Your task to perform on an android device: Search for Italian restaurants on Maps Image 0: 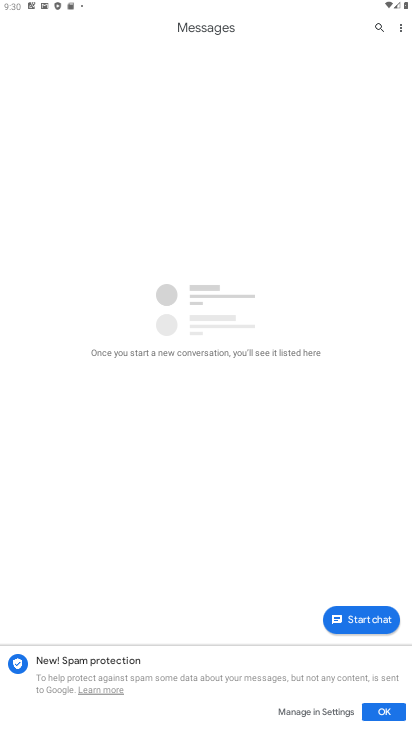
Step 0: press home button
Your task to perform on an android device: Search for Italian restaurants on Maps Image 1: 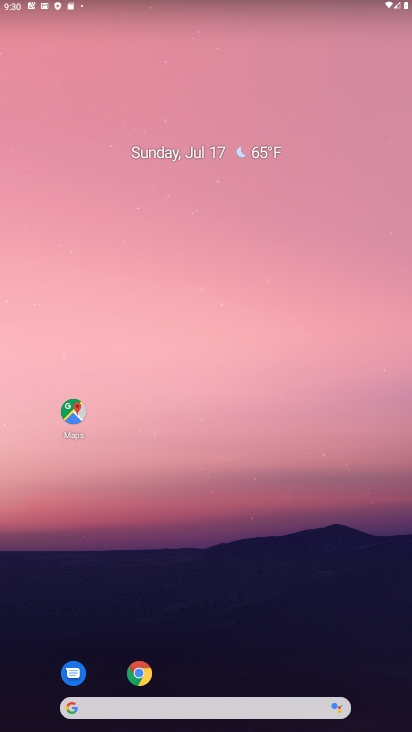
Step 1: click (79, 413)
Your task to perform on an android device: Search for Italian restaurants on Maps Image 2: 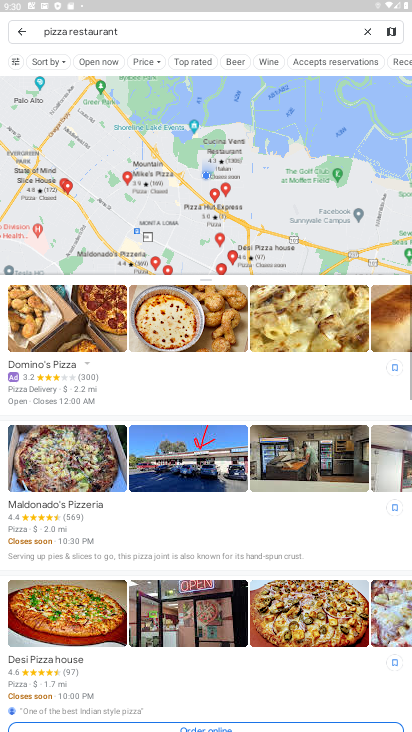
Step 2: click (369, 30)
Your task to perform on an android device: Search for Italian restaurants on Maps Image 3: 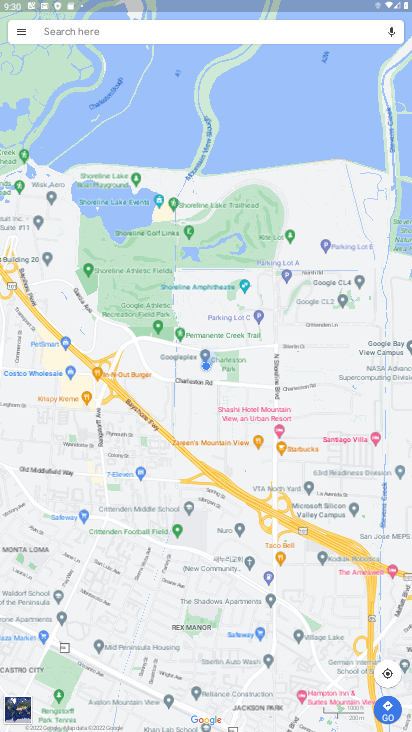
Step 3: click (117, 29)
Your task to perform on an android device: Search for Italian restaurants on Maps Image 4: 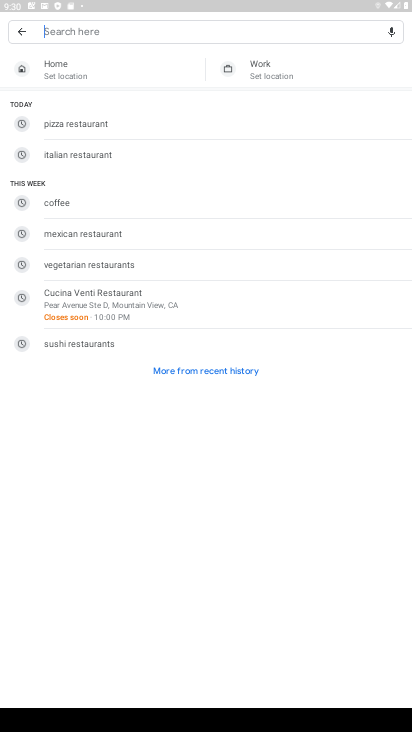
Step 4: type "italian restaurants"
Your task to perform on an android device: Search for Italian restaurants on Maps Image 5: 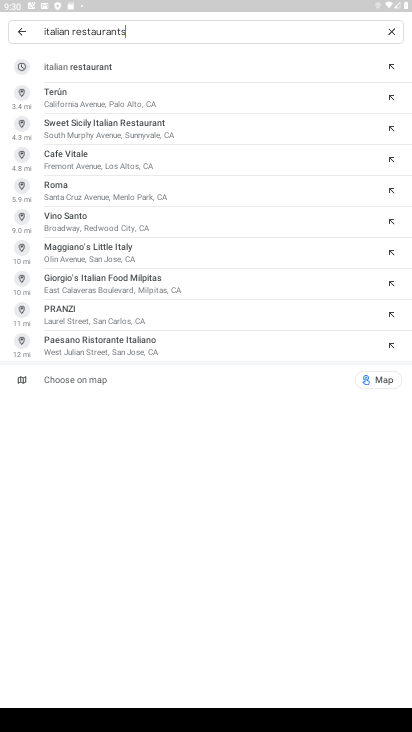
Step 5: click (90, 63)
Your task to perform on an android device: Search for Italian restaurants on Maps Image 6: 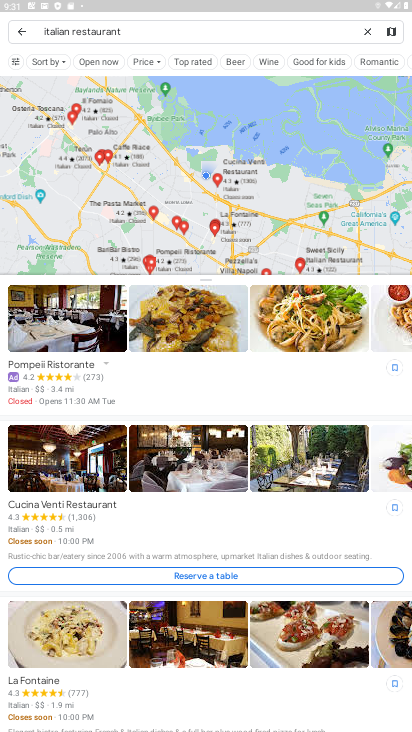
Step 6: task complete